Your task to perform on an android device: open app "DuckDuckGo Privacy Browser" (install if not already installed) Image 0: 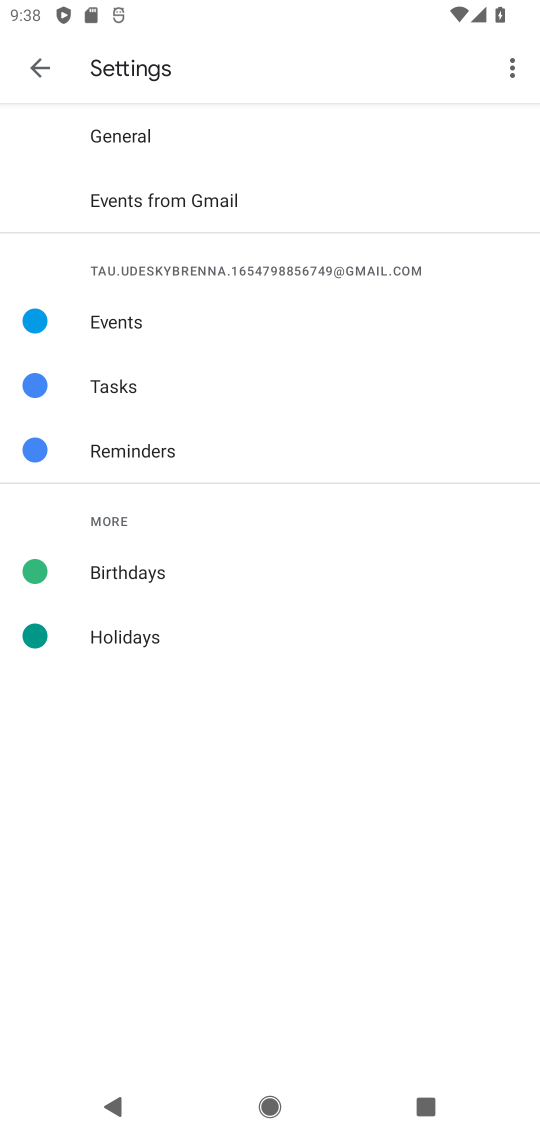
Step 0: click (39, 33)
Your task to perform on an android device: open app "DuckDuckGo Privacy Browser" (install if not already installed) Image 1: 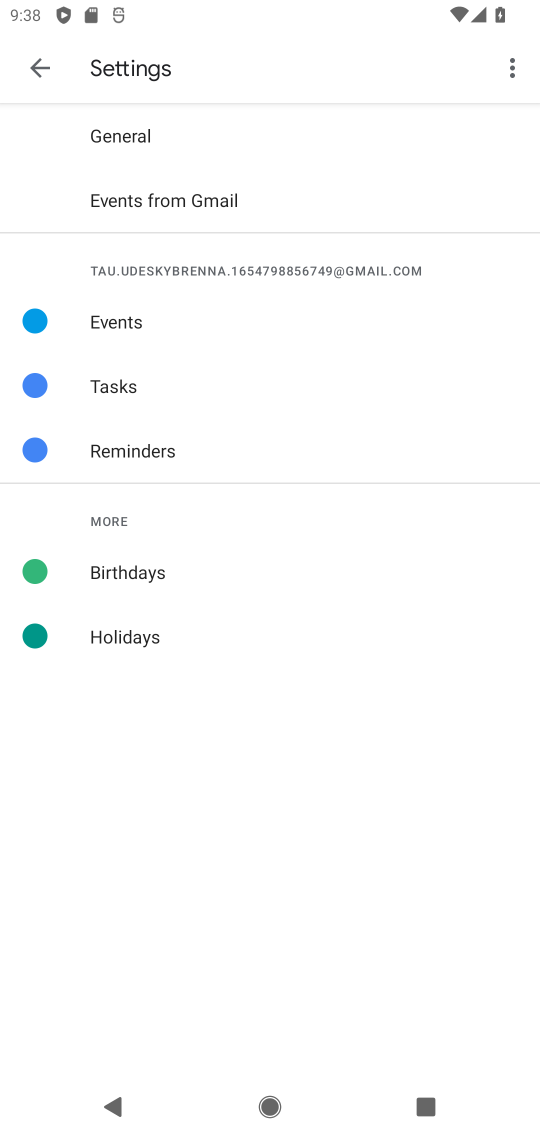
Step 1: click (36, 35)
Your task to perform on an android device: open app "DuckDuckGo Privacy Browser" (install if not already installed) Image 2: 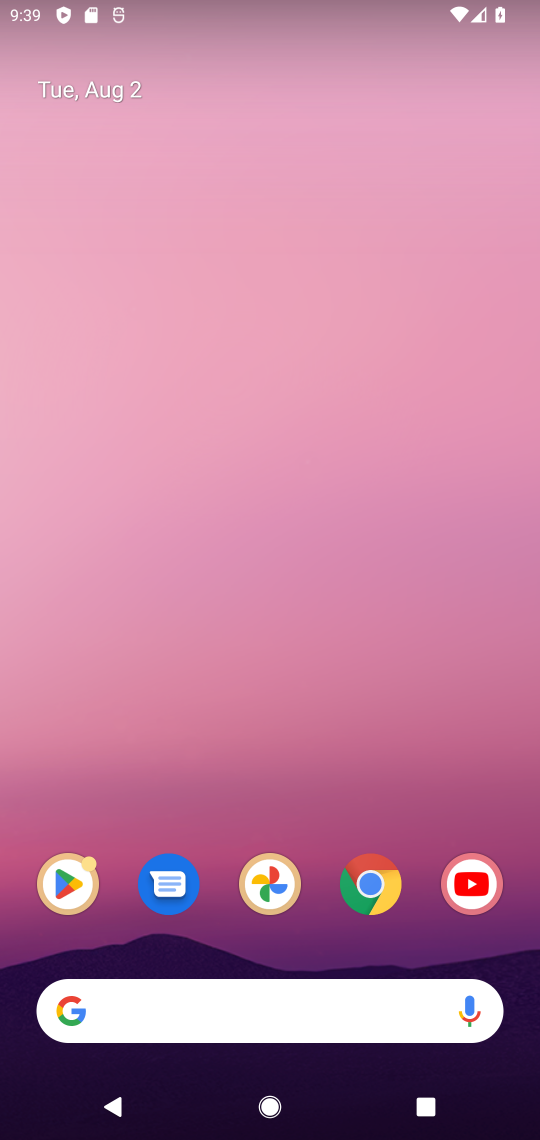
Step 2: click (288, 97)
Your task to perform on an android device: open app "DuckDuckGo Privacy Browser" (install if not already installed) Image 3: 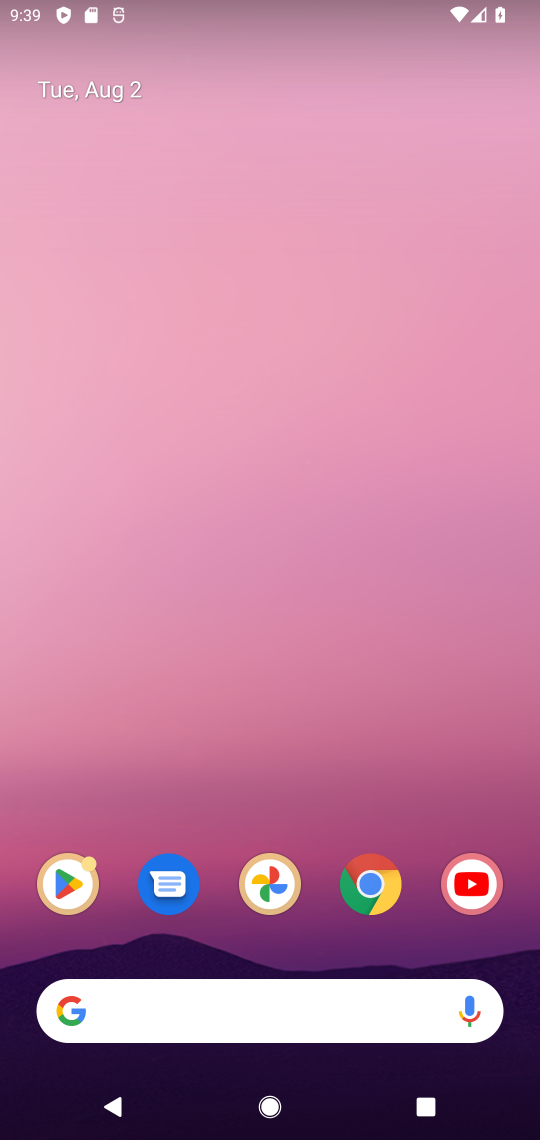
Step 3: drag from (342, 560) to (390, 17)
Your task to perform on an android device: open app "DuckDuckGo Privacy Browser" (install if not already installed) Image 4: 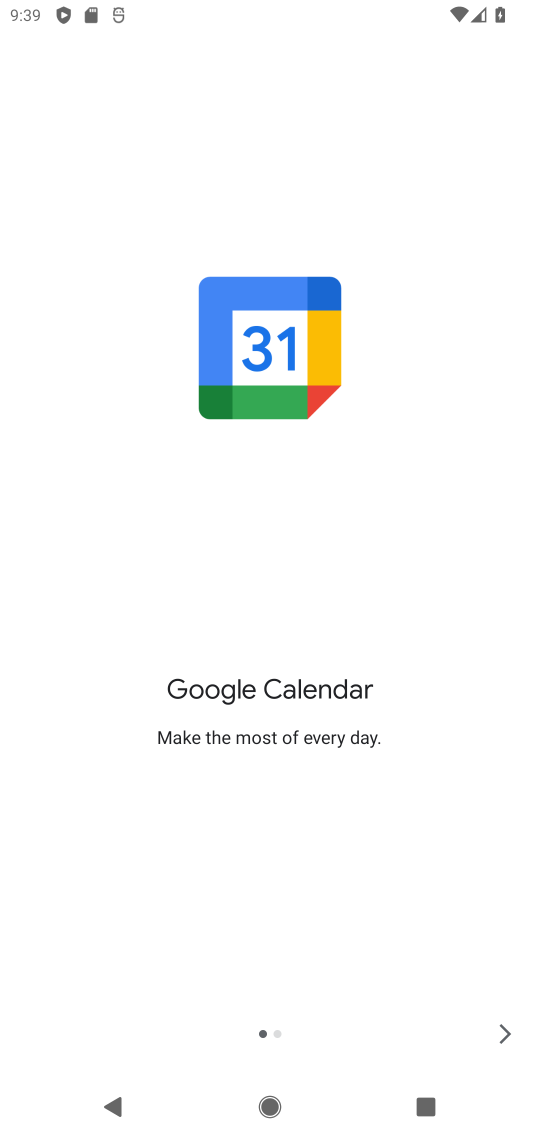
Step 4: press back button
Your task to perform on an android device: open app "DuckDuckGo Privacy Browser" (install if not already installed) Image 5: 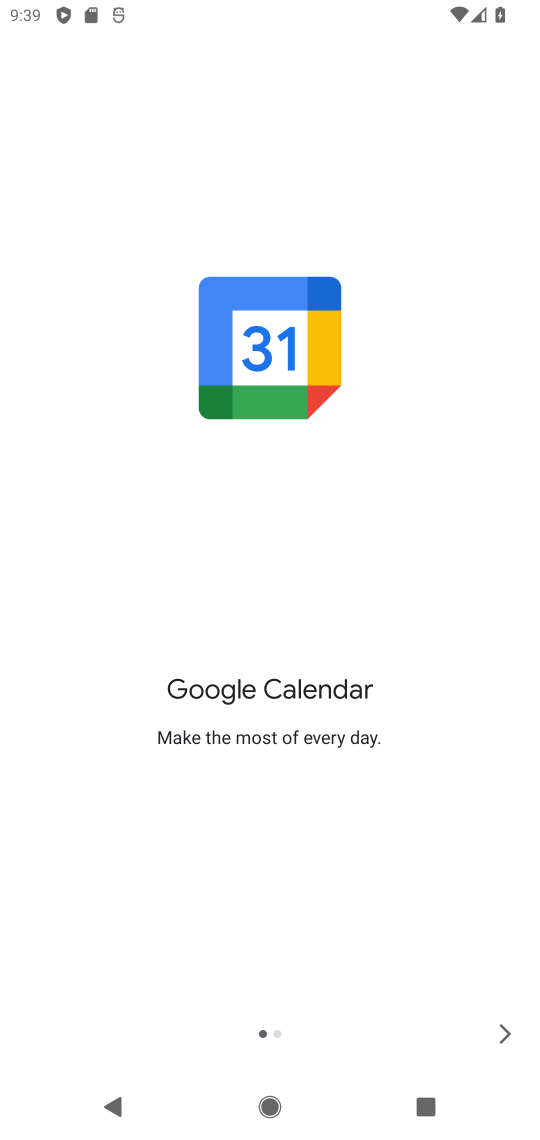
Step 5: press back button
Your task to perform on an android device: open app "DuckDuckGo Privacy Browser" (install if not already installed) Image 6: 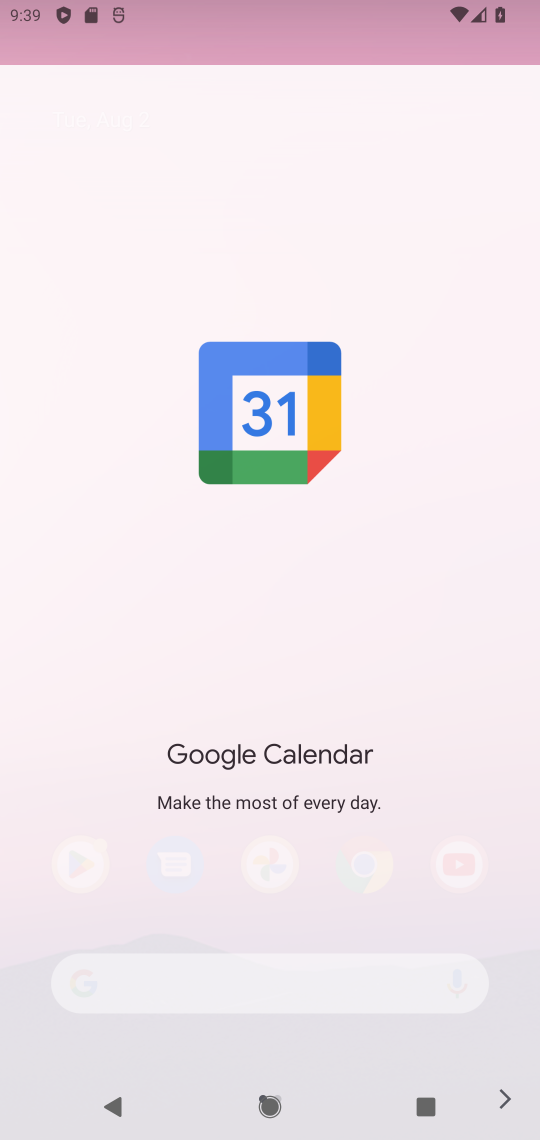
Step 6: press back button
Your task to perform on an android device: open app "DuckDuckGo Privacy Browser" (install if not already installed) Image 7: 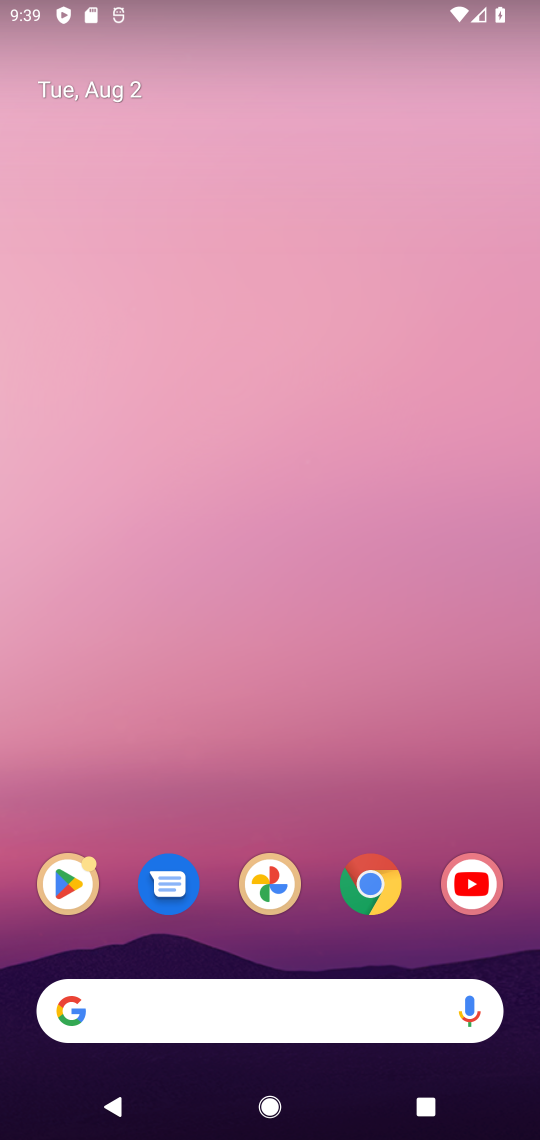
Step 7: click (307, 613)
Your task to perform on an android device: open app "DuckDuckGo Privacy Browser" (install if not already installed) Image 8: 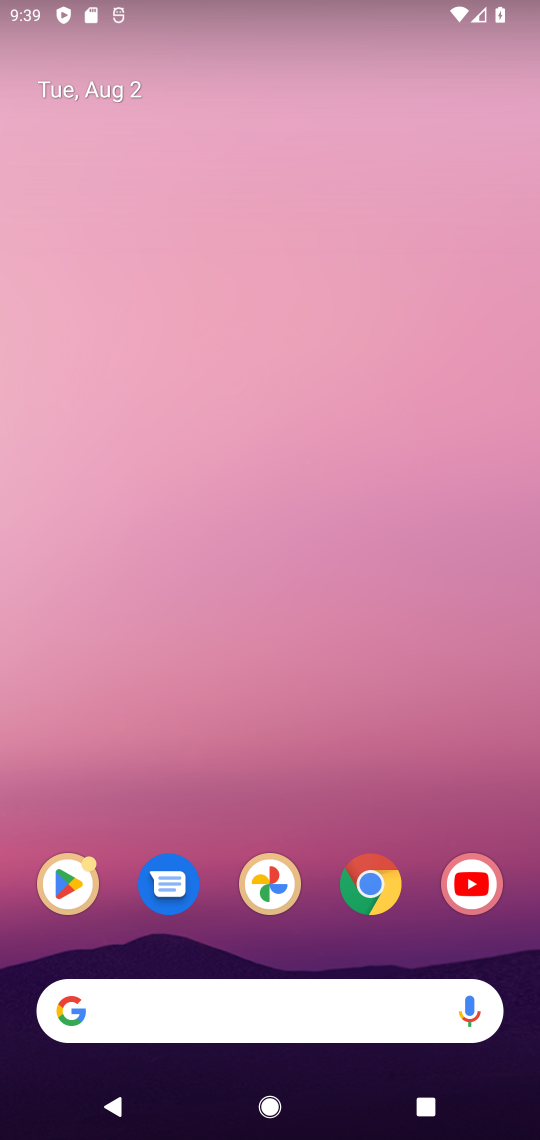
Step 8: click (307, 613)
Your task to perform on an android device: open app "DuckDuckGo Privacy Browser" (install if not already installed) Image 9: 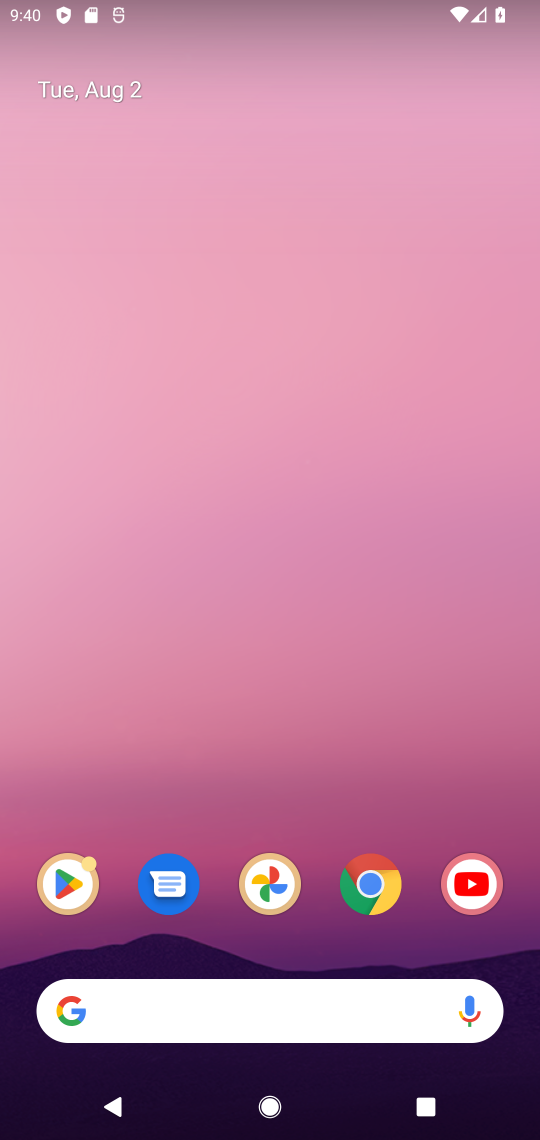
Step 9: task complete